Your task to perform on an android device: set the timer Image 0: 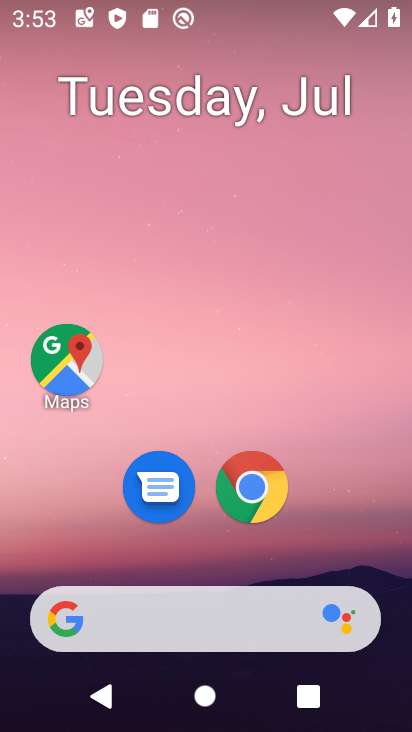
Step 0: drag from (189, 557) to (233, 21)
Your task to perform on an android device: set the timer Image 1: 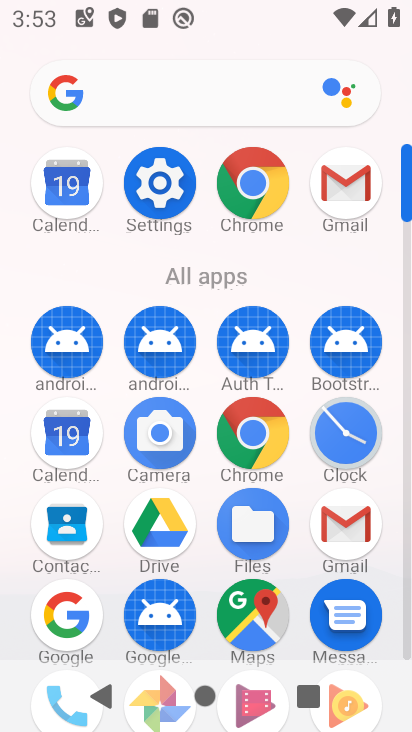
Step 1: click (346, 429)
Your task to perform on an android device: set the timer Image 2: 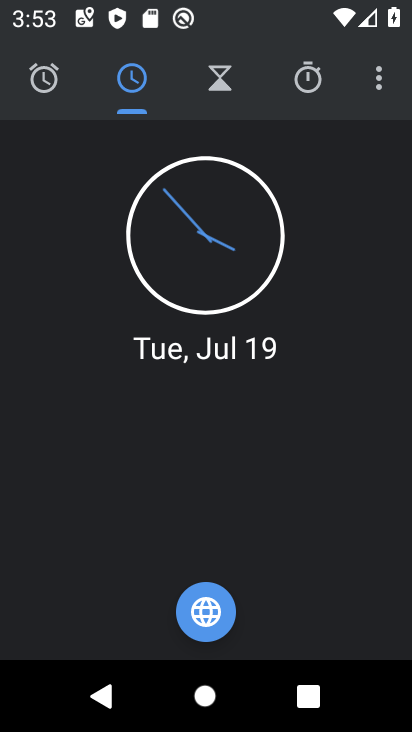
Step 2: click (215, 83)
Your task to perform on an android device: set the timer Image 3: 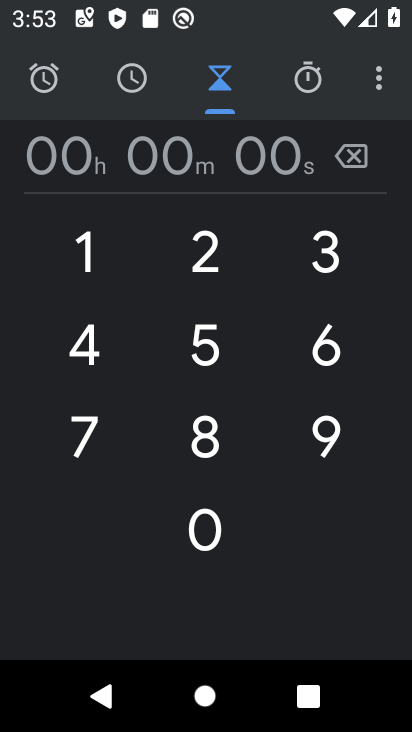
Step 3: click (214, 242)
Your task to perform on an android device: set the timer Image 4: 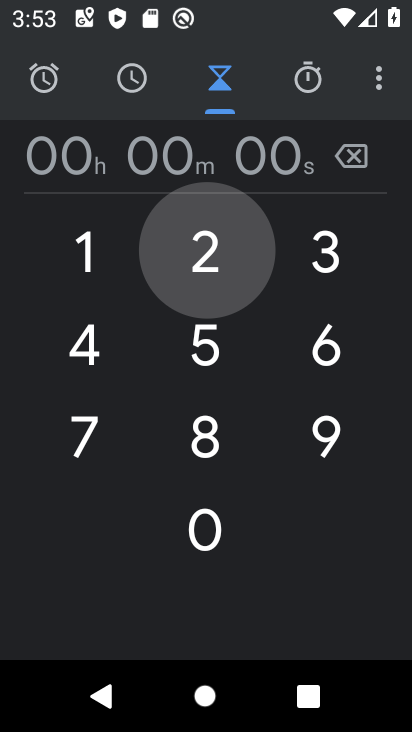
Step 4: click (341, 233)
Your task to perform on an android device: set the timer Image 5: 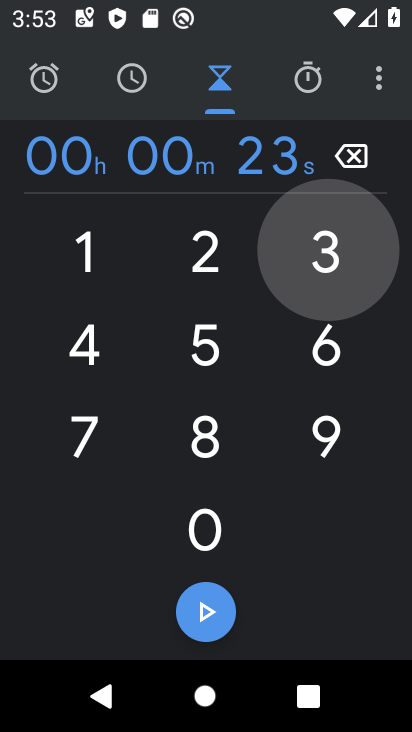
Step 5: click (200, 361)
Your task to perform on an android device: set the timer Image 6: 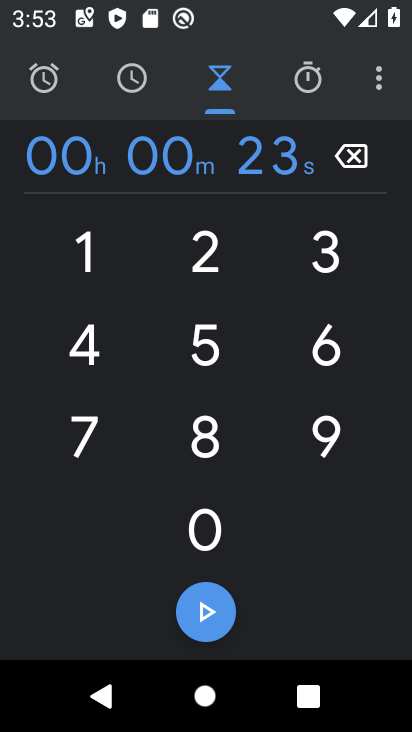
Step 6: click (328, 337)
Your task to perform on an android device: set the timer Image 7: 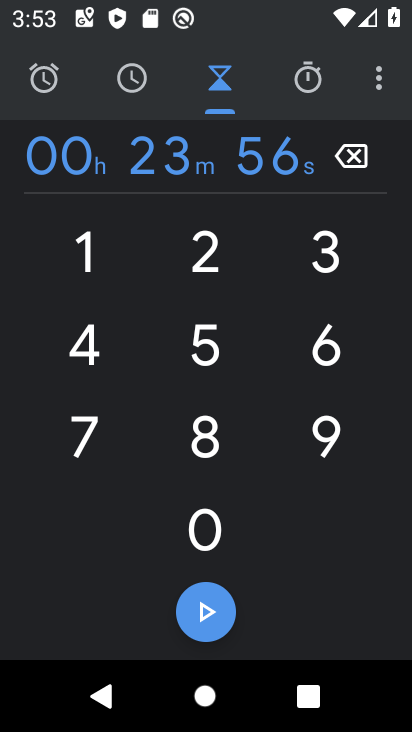
Step 7: click (75, 350)
Your task to perform on an android device: set the timer Image 8: 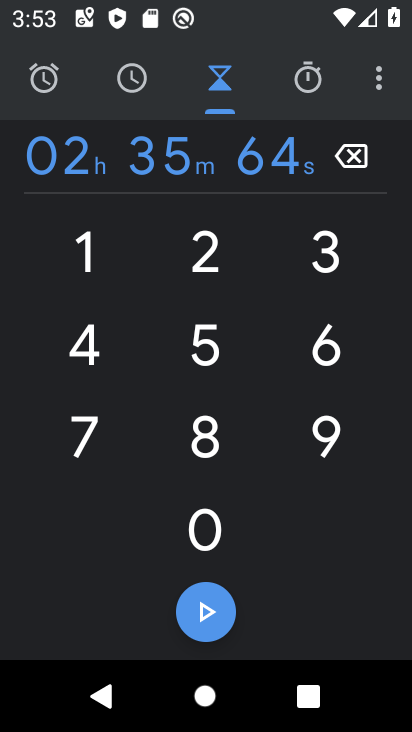
Step 8: click (201, 586)
Your task to perform on an android device: set the timer Image 9: 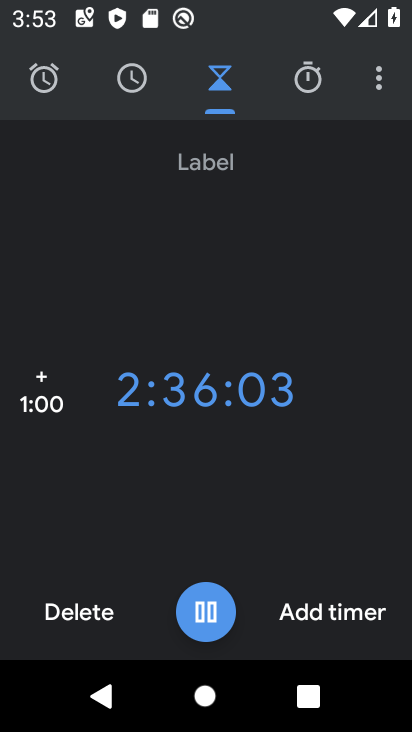
Step 9: click (205, 612)
Your task to perform on an android device: set the timer Image 10: 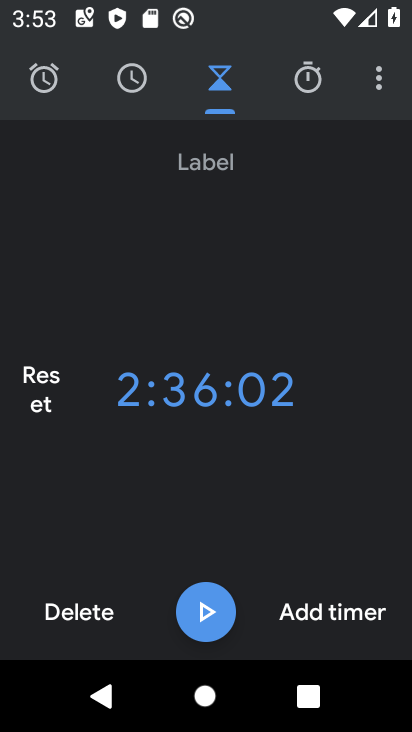
Step 10: task complete